Your task to perform on an android device: toggle location history Image 0: 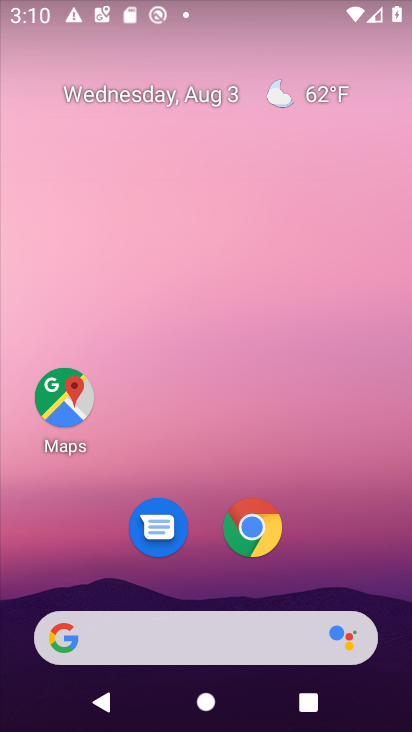
Step 0: drag from (361, 547) to (372, 140)
Your task to perform on an android device: toggle location history Image 1: 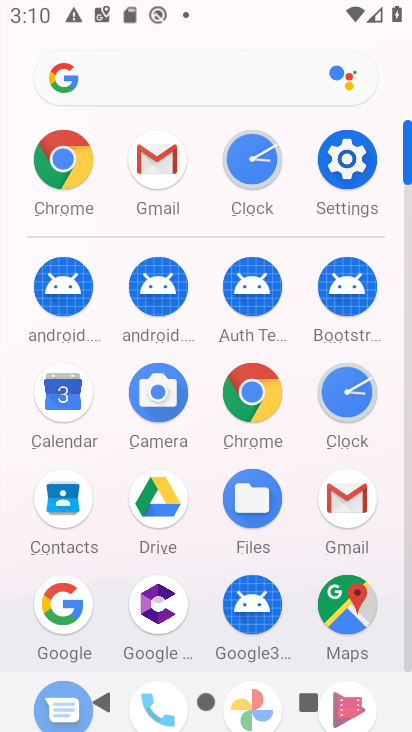
Step 1: click (340, 161)
Your task to perform on an android device: toggle location history Image 2: 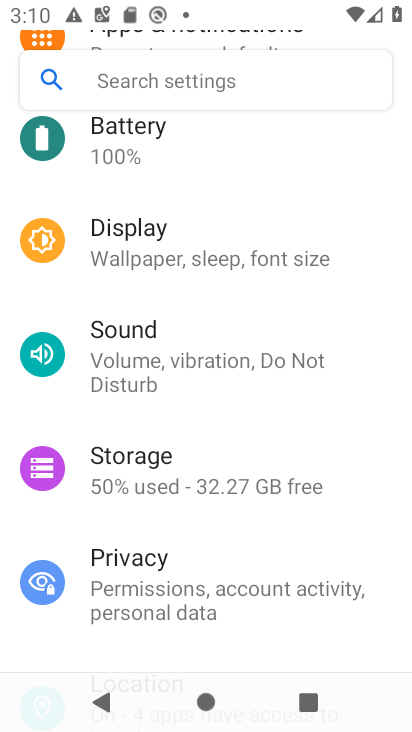
Step 2: drag from (359, 519) to (380, 207)
Your task to perform on an android device: toggle location history Image 3: 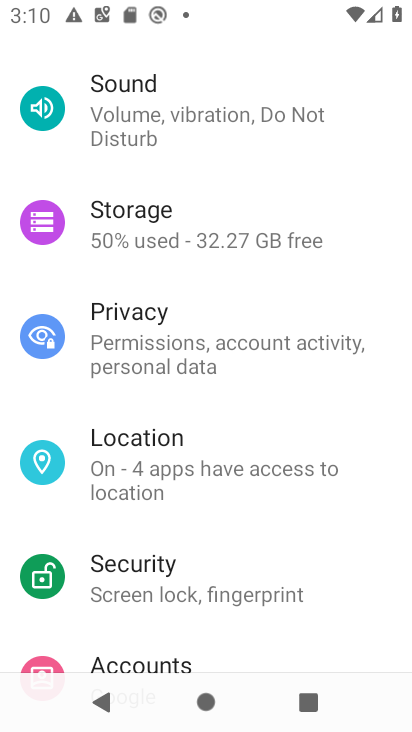
Step 3: click (123, 452)
Your task to perform on an android device: toggle location history Image 4: 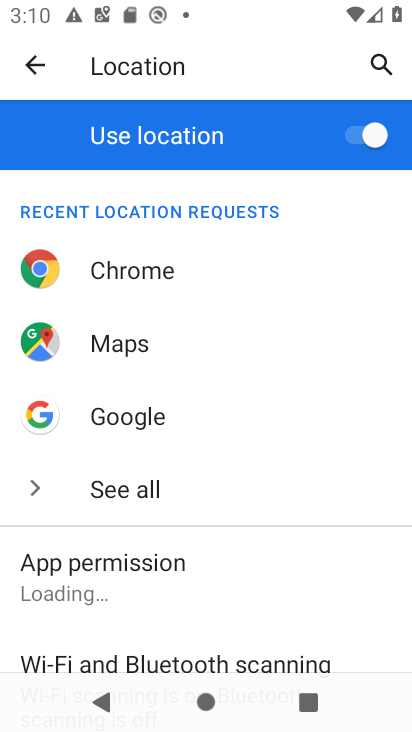
Step 4: drag from (354, 597) to (376, 278)
Your task to perform on an android device: toggle location history Image 5: 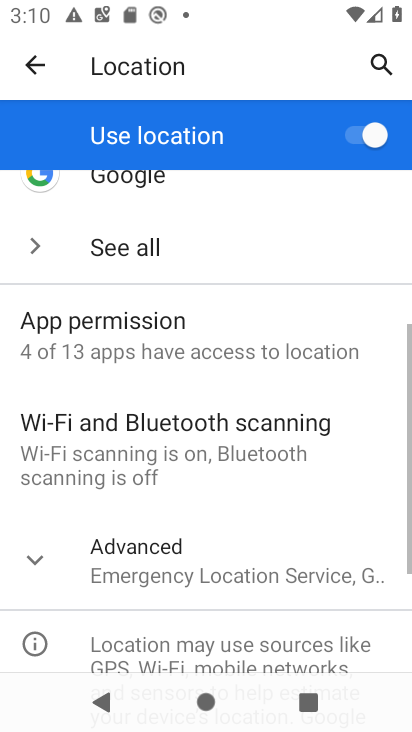
Step 5: click (210, 571)
Your task to perform on an android device: toggle location history Image 6: 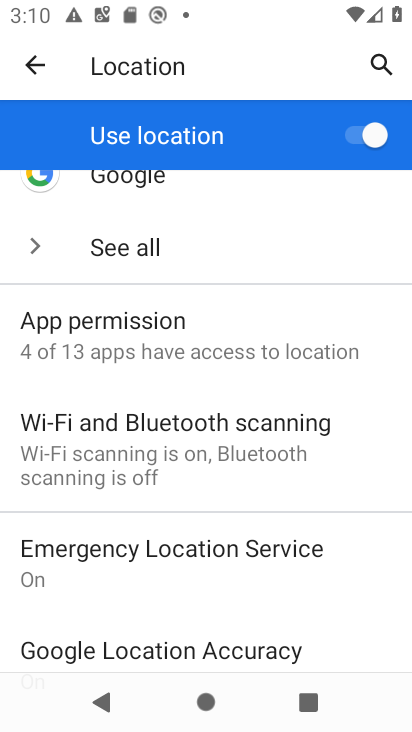
Step 6: drag from (378, 335) to (408, 150)
Your task to perform on an android device: toggle location history Image 7: 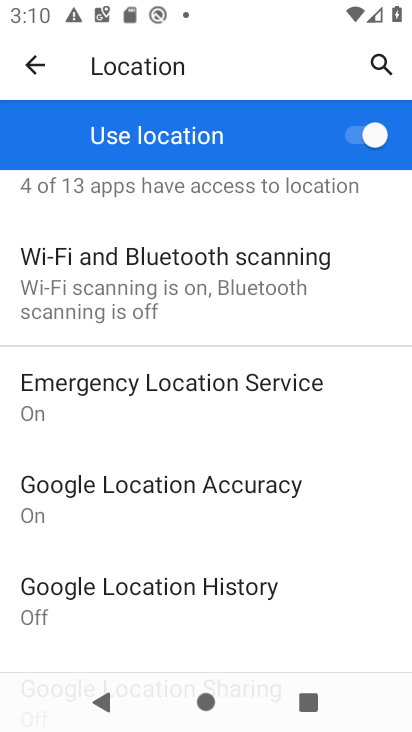
Step 7: click (227, 564)
Your task to perform on an android device: toggle location history Image 8: 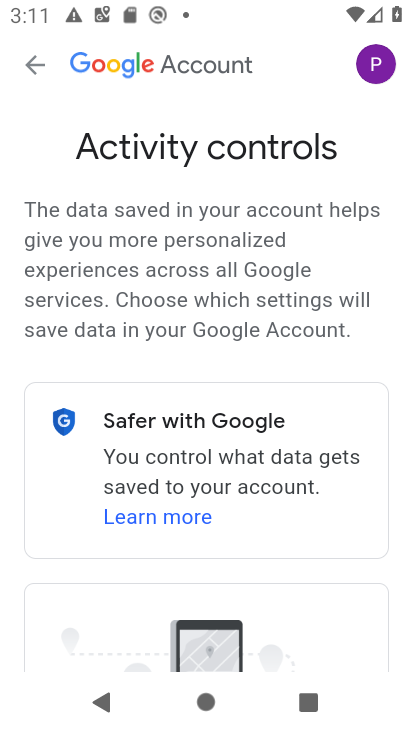
Step 8: drag from (320, 541) to (347, 123)
Your task to perform on an android device: toggle location history Image 9: 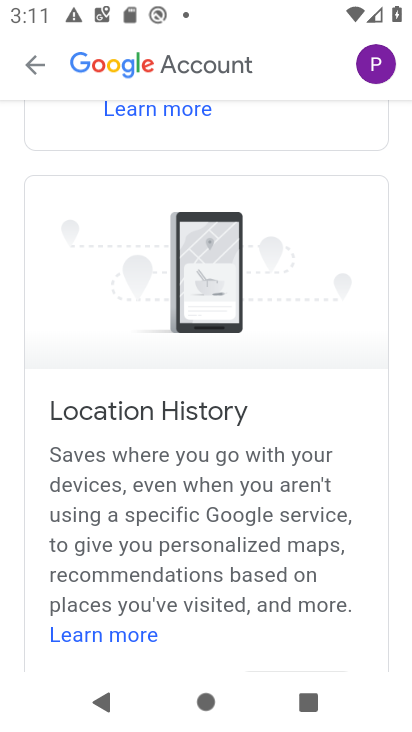
Step 9: drag from (317, 552) to (364, 174)
Your task to perform on an android device: toggle location history Image 10: 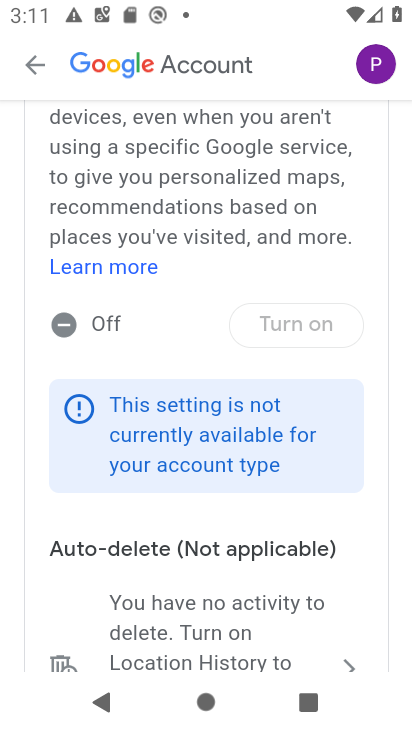
Step 10: click (312, 324)
Your task to perform on an android device: toggle location history Image 11: 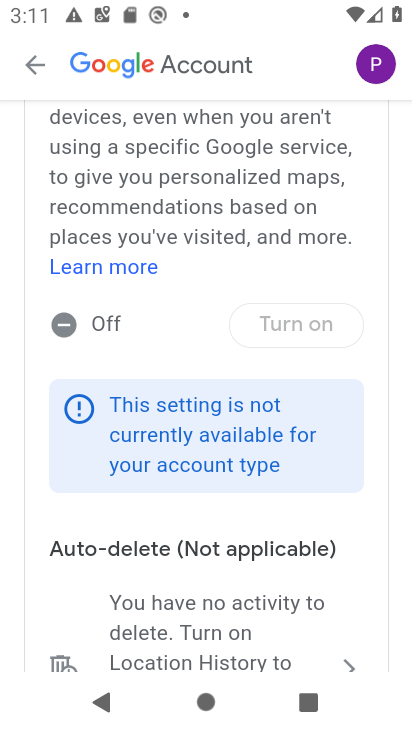
Step 11: click (99, 317)
Your task to perform on an android device: toggle location history Image 12: 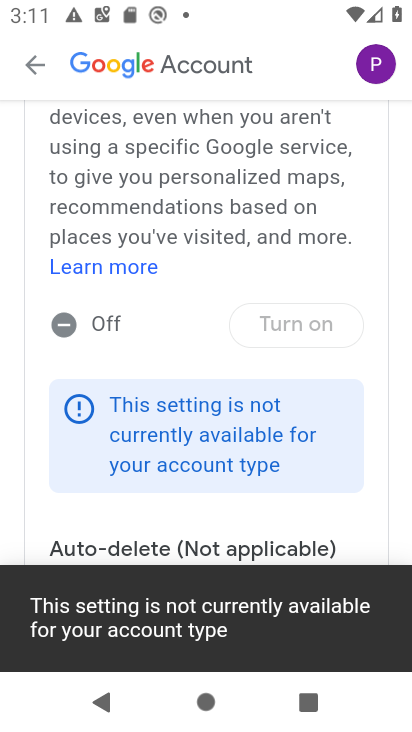
Step 12: task complete